Your task to perform on an android device: set default search engine in the chrome app Image 0: 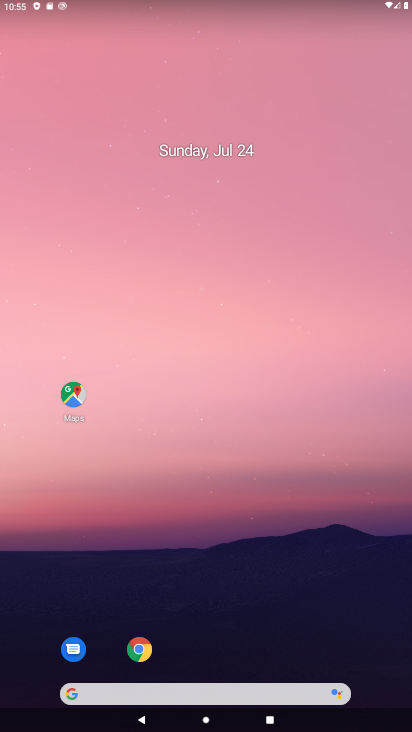
Step 0: click (140, 660)
Your task to perform on an android device: set default search engine in the chrome app Image 1: 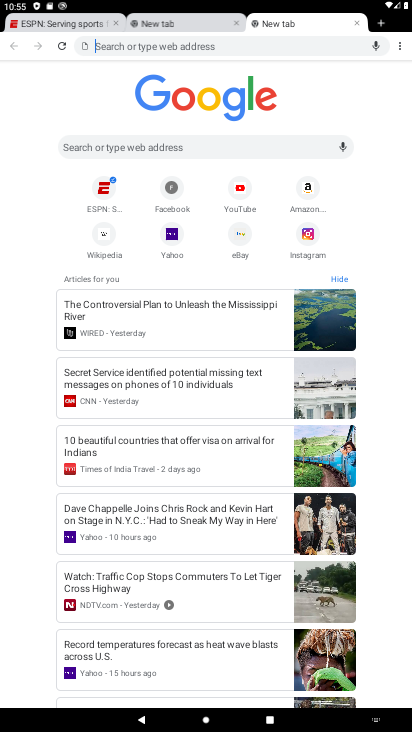
Step 1: drag from (398, 49) to (328, 210)
Your task to perform on an android device: set default search engine in the chrome app Image 2: 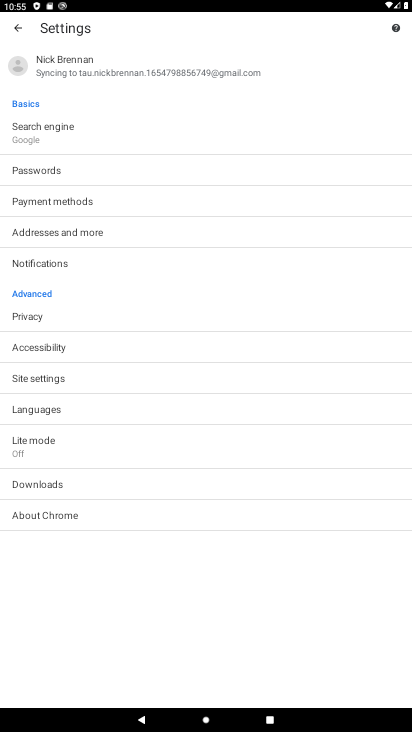
Step 2: click (88, 137)
Your task to perform on an android device: set default search engine in the chrome app Image 3: 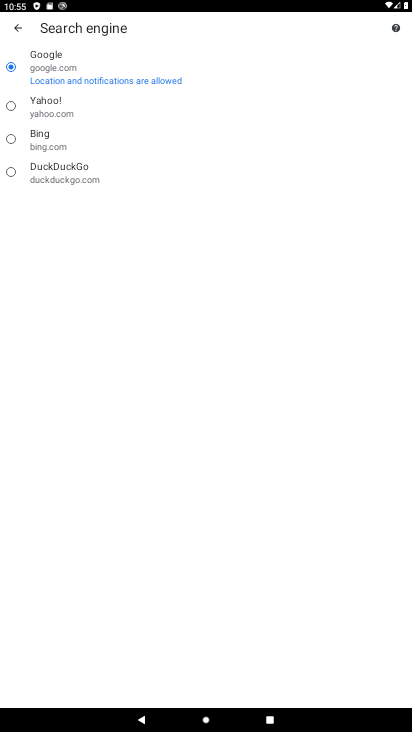
Step 3: click (42, 137)
Your task to perform on an android device: set default search engine in the chrome app Image 4: 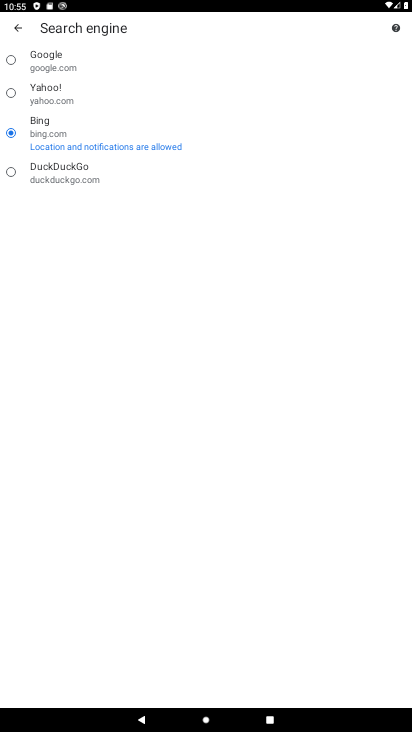
Step 4: task complete